Your task to perform on an android device: Open display settings Image 0: 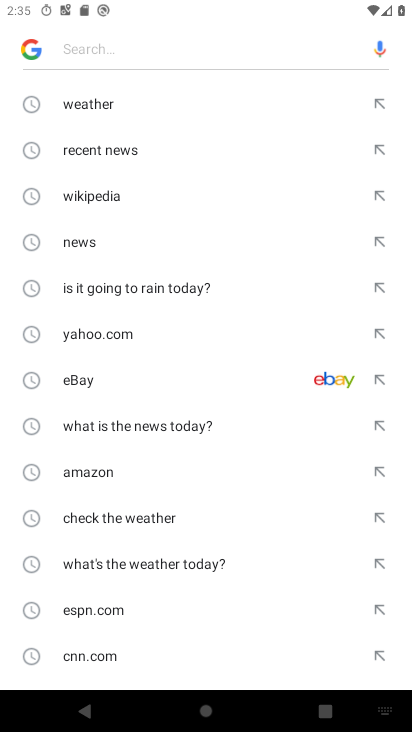
Step 0: press home button
Your task to perform on an android device: Open display settings Image 1: 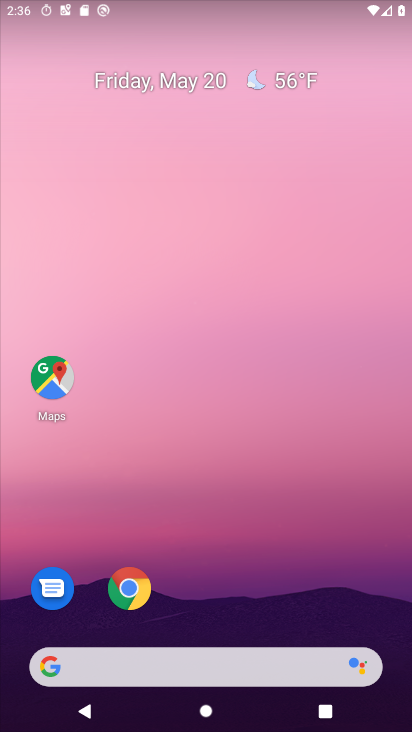
Step 1: drag from (48, 454) to (273, 199)
Your task to perform on an android device: Open display settings Image 2: 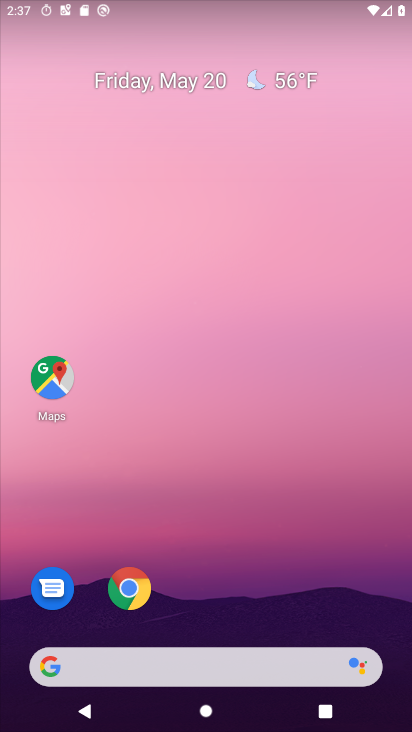
Step 2: drag from (25, 582) to (270, 129)
Your task to perform on an android device: Open display settings Image 3: 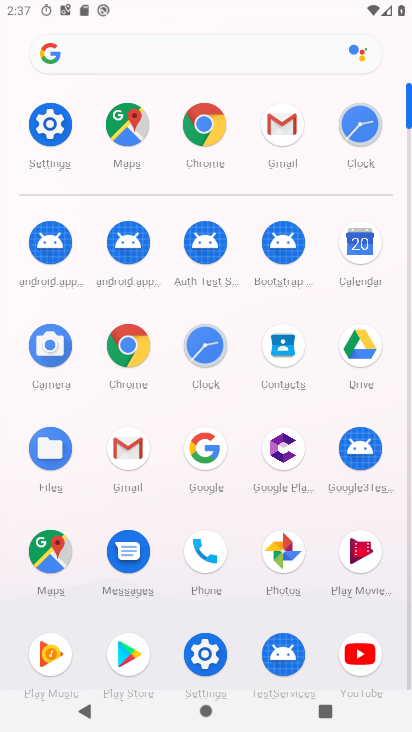
Step 3: click (52, 129)
Your task to perform on an android device: Open display settings Image 4: 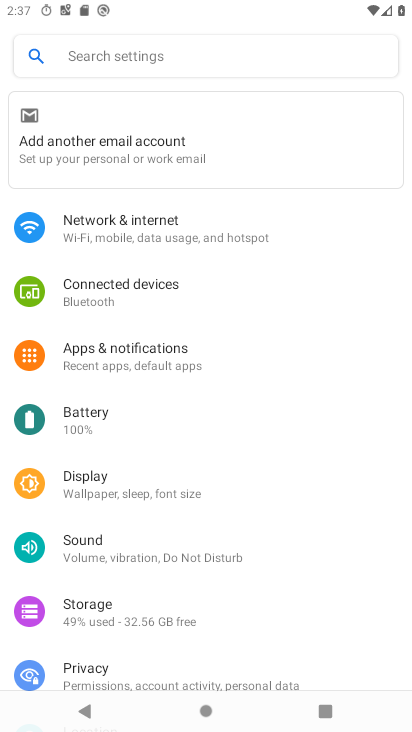
Step 4: click (104, 486)
Your task to perform on an android device: Open display settings Image 5: 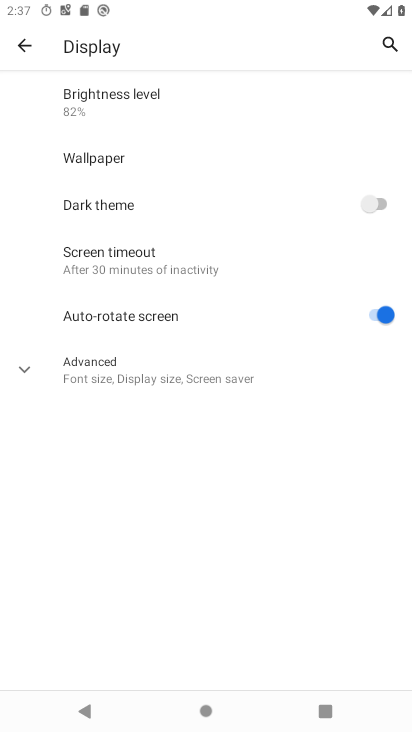
Step 5: task complete